Your task to perform on an android device: check google app version Image 0: 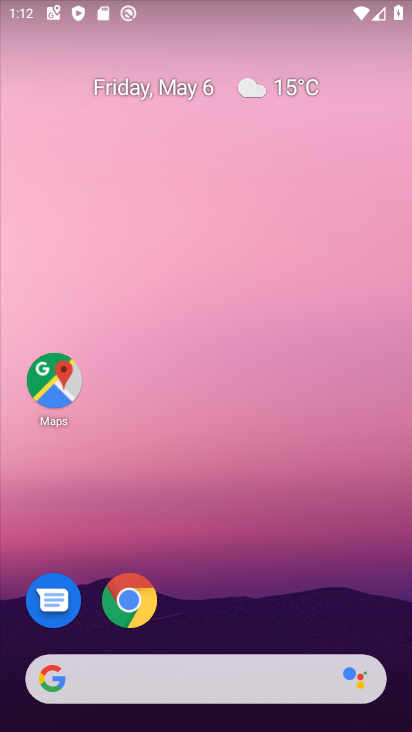
Step 0: drag from (349, 621) to (326, 77)
Your task to perform on an android device: check google app version Image 1: 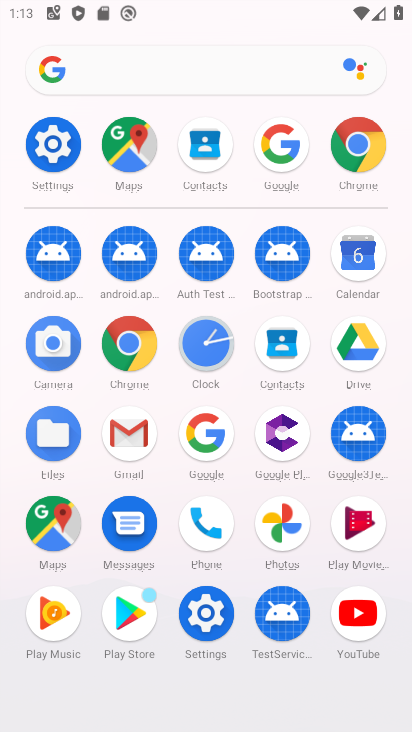
Step 1: click (202, 452)
Your task to perform on an android device: check google app version Image 2: 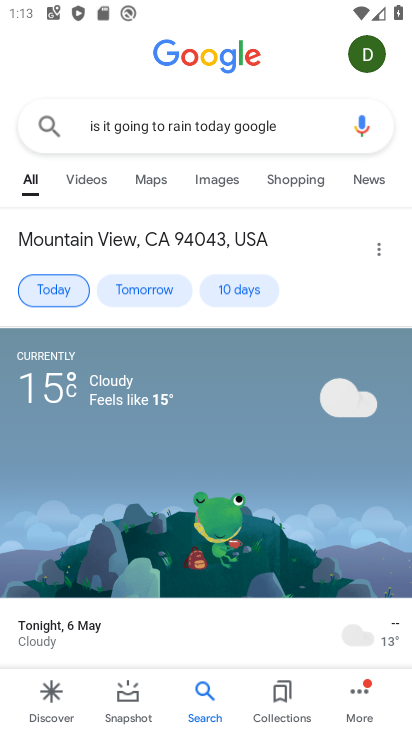
Step 2: press home button
Your task to perform on an android device: check google app version Image 3: 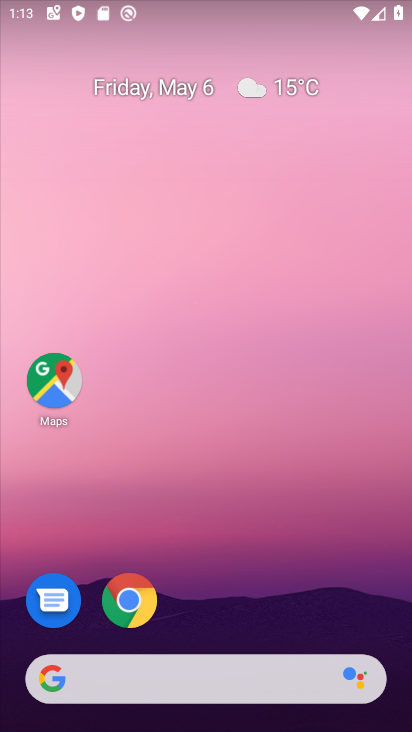
Step 3: drag from (208, 554) to (243, 37)
Your task to perform on an android device: check google app version Image 4: 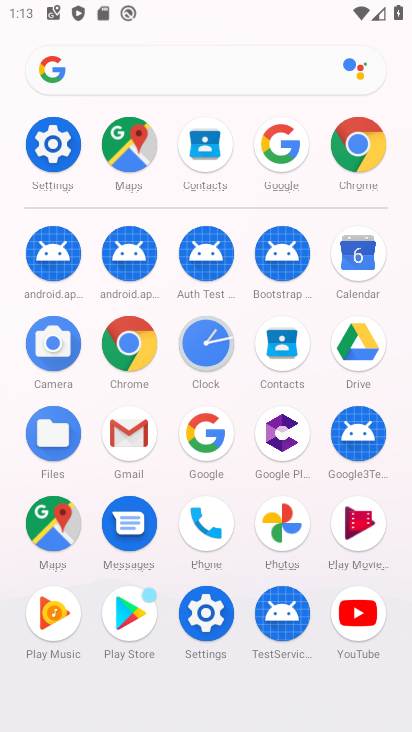
Step 4: click (193, 440)
Your task to perform on an android device: check google app version Image 5: 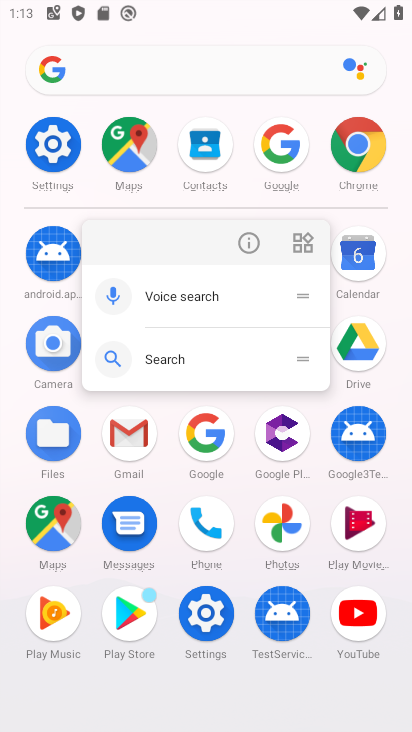
Step 5: click (254, 236)
Your task to perform on an android device: check google app version Image 6: 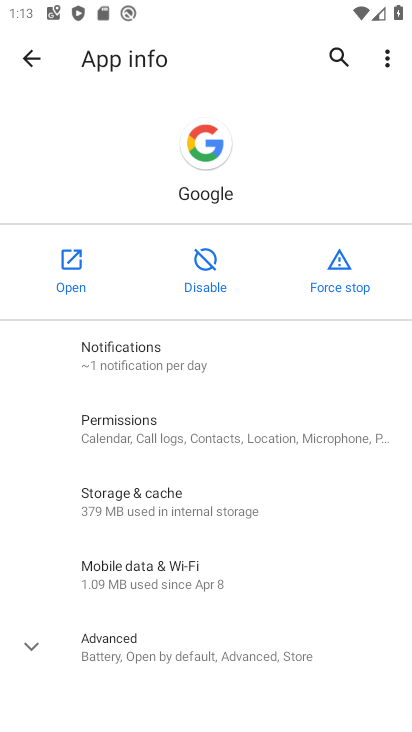
Step 6: drag from (199, 583) to (258, 130)
Your task to perform on an android device: check google app version Image 7: 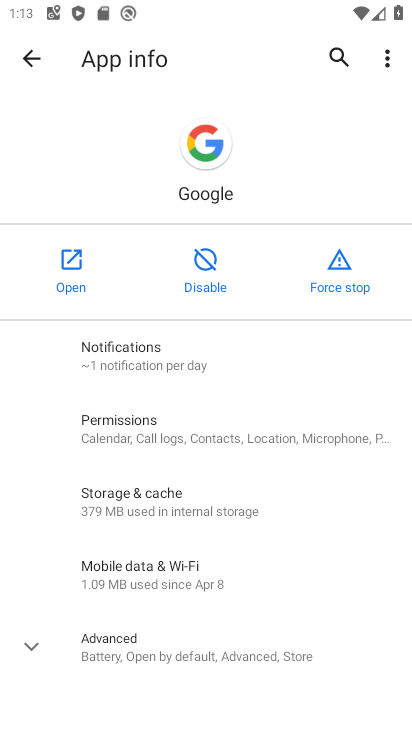
Step 7: click (37, 644)
Your task to perform on an android device: check google app version Image 8: 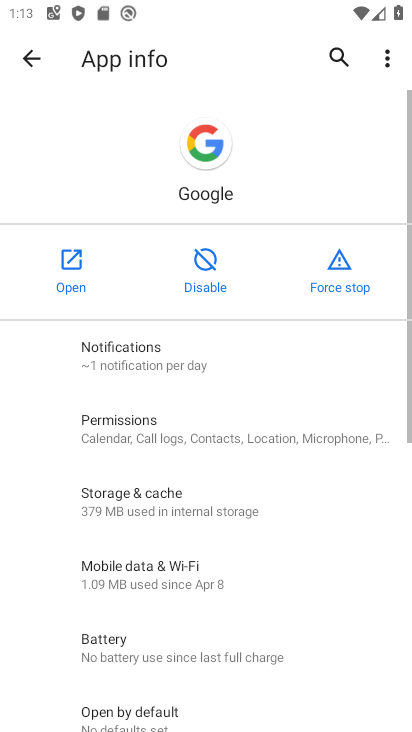
Step 8: task complete